Your task to perform on an android device: What's on my calendar tomorrow? Image 0: 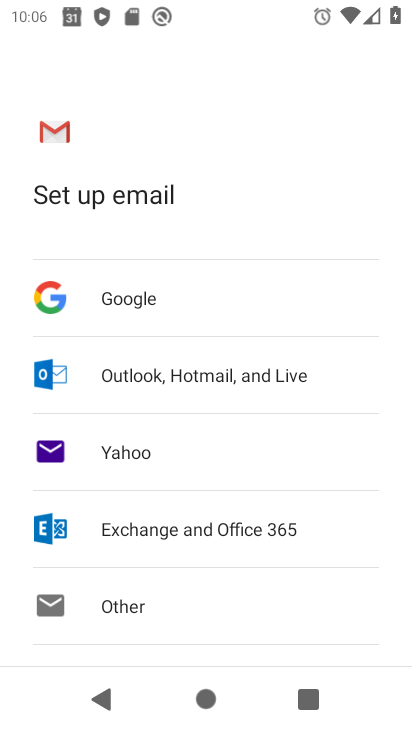
Step 0: press home button
Your task to perform on an android device: What's on my calendar tomorrow? Image 1: 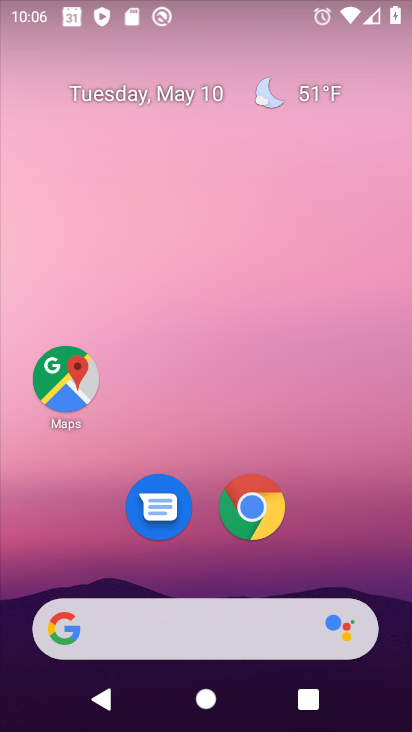
Step 1: click (131, 93)
Your task to perform on an android device: What's on my calendar tomorrow? Image 2: 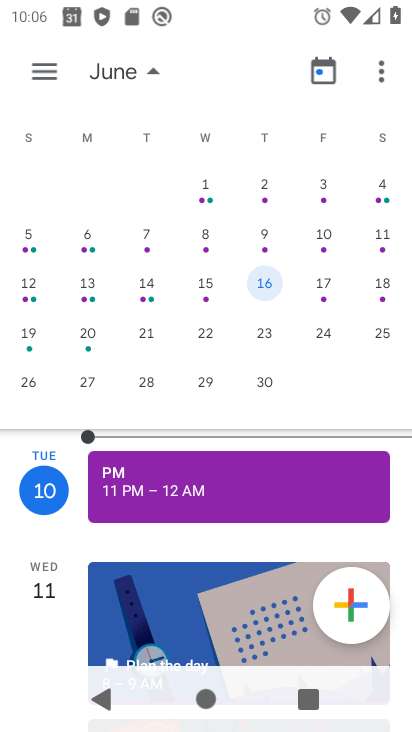
Step 2: click (318, 289)
Your task to perform on an android device: What's on my calendar tomorrow? Image 3: 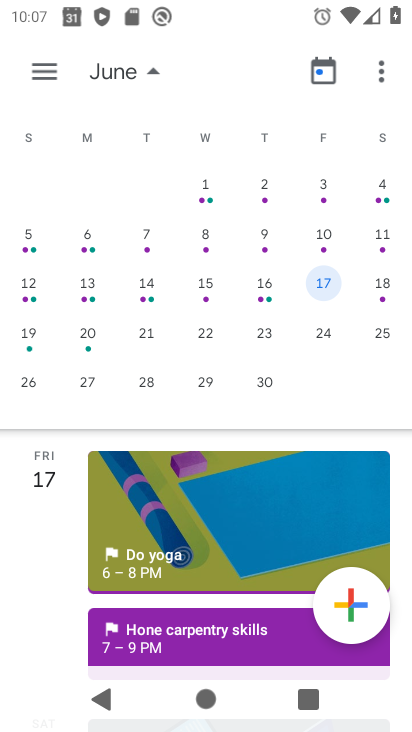
Step 3: task complete